Your task to perform on an android device: Do I have any events tomorrow? Image 0: 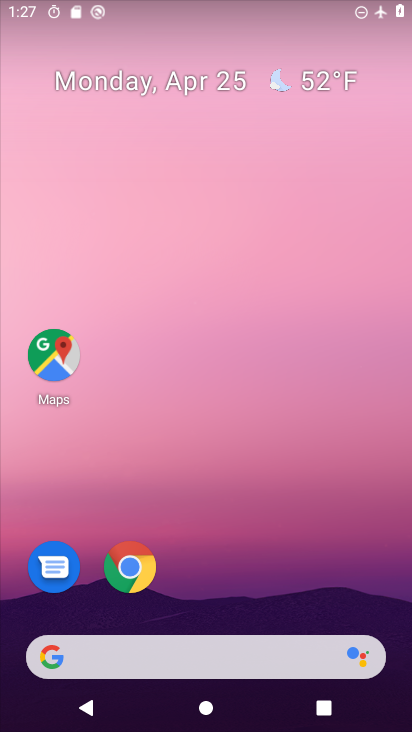
Step 0: drag from (238, 511) to (314, 0)
Your task to perform on an android device: Do I have any events tomorrow? Image 1: 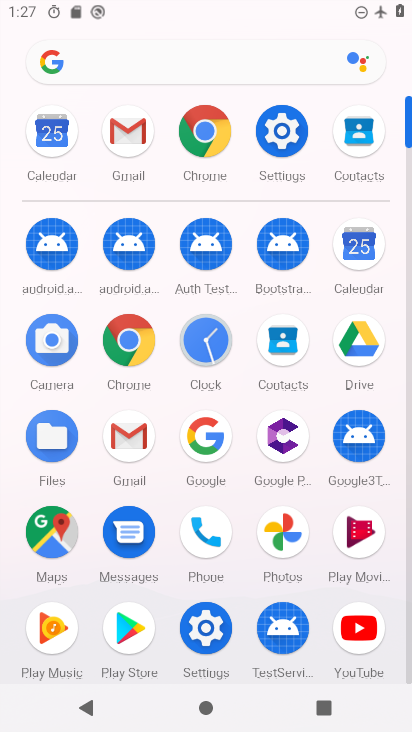
Step 1: click (51, 122)
Your task to perform on an android device: Do I have any events tomorrow? Image 2: 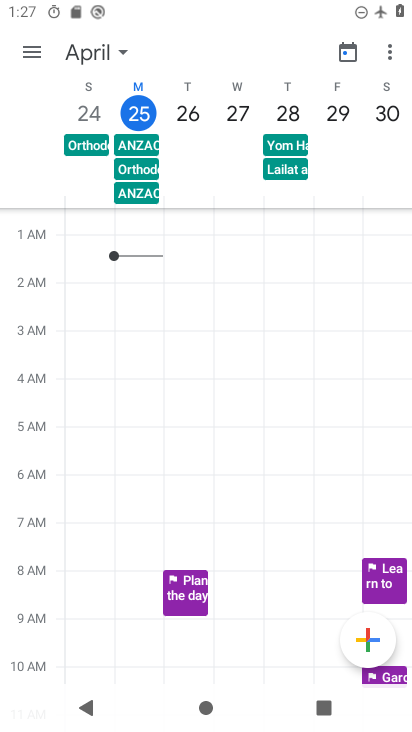
Step 2: click (195, 588)
Your task to perform on an android device: Do I have any events tomorrow? Image 3: 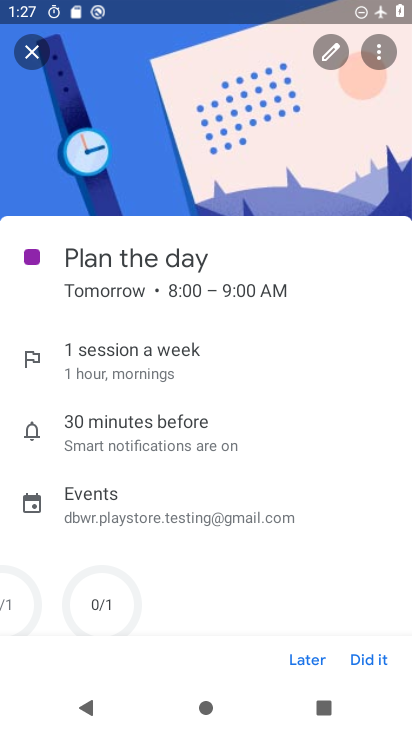
Step 3: task complete